Your task to perform on an android device: Search for Italian restaurants on Maps Image 0: 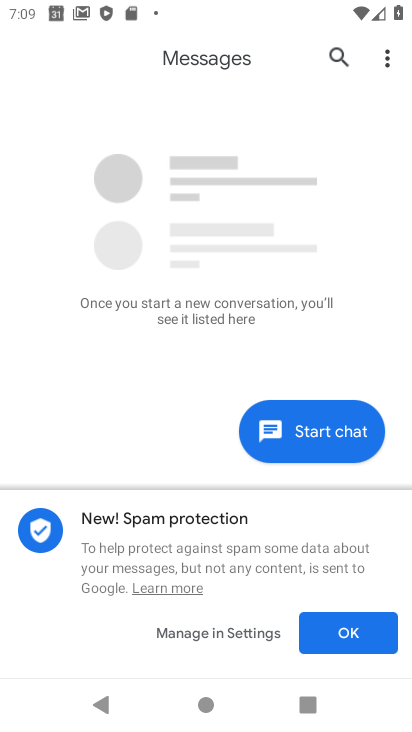
Step 0: press home button
Your task to perform on an android device: Search for Italian restaurants on Maps Image 1: 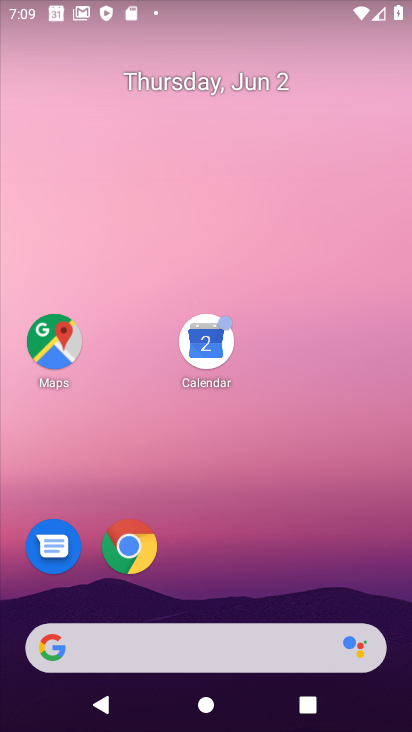
Step 1: drag from (271, 678) to (290, 77)
Your task to perform on an android device: Search for Italian restaurants on Maps Image 2: 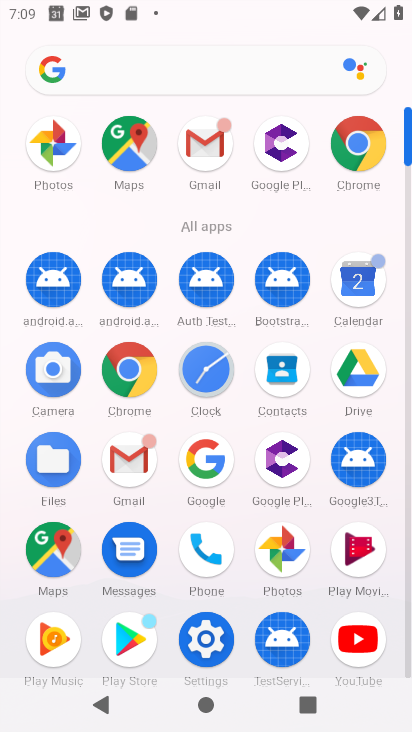
Step 2: click (62, 547)
Your task to perform on an android device: Search for Italian restaurants on Maps Image 3: 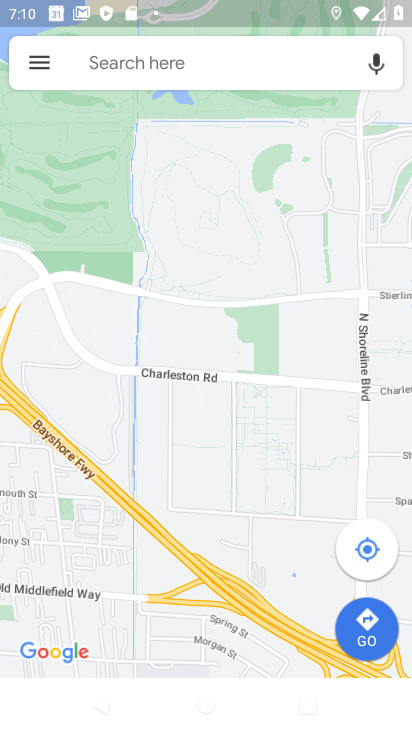
Step 3: click (238, 72)
Your task to perform on an android device: Search for Italian restaurants on Maps Image 4: 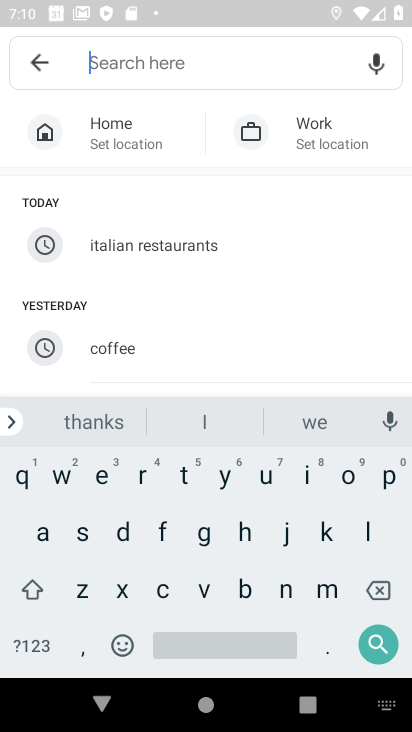
Step 4: click (154, 237)
Your task to perform on an android device: Search for Italian restaurants on Maps Image 5: 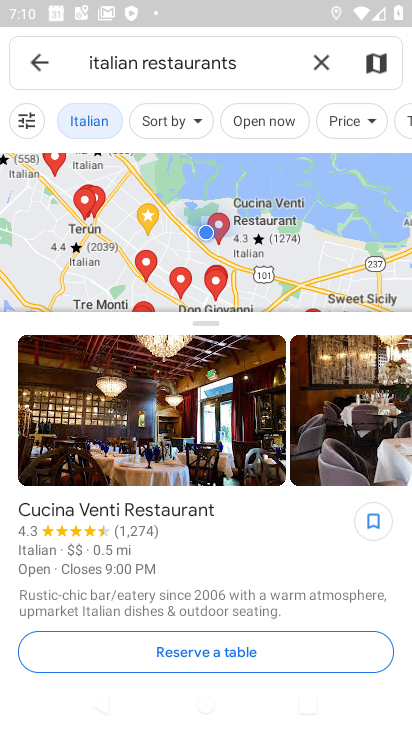
Step 5: task complete